Your task to perform on an android device: open app "DoorDash - Dasher" (install if not already installed) Image 0: 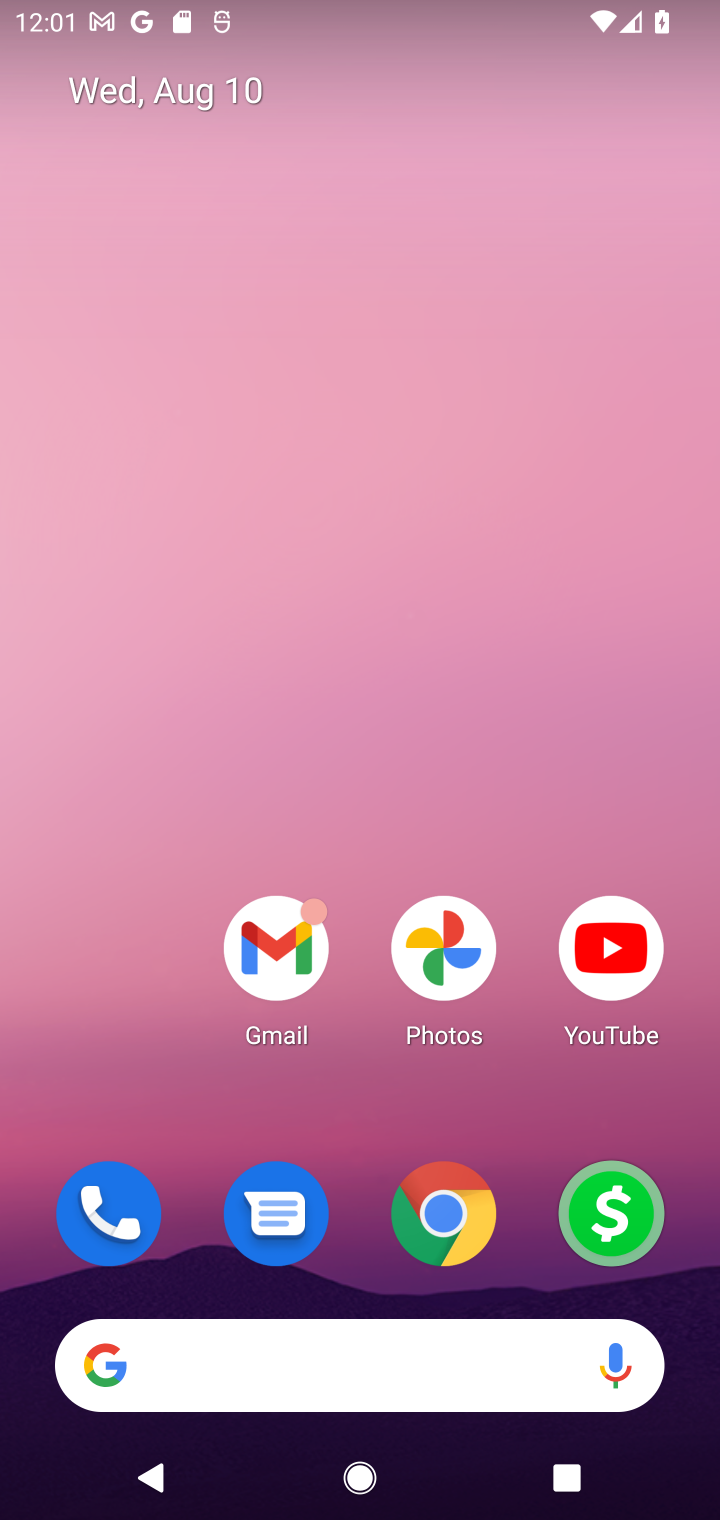
Step 0: drag from (413, 1353) to (359, 131)
Your task to perform on an android device: open app "DoorDash - Dasher" (install if not already installed) Image 1: 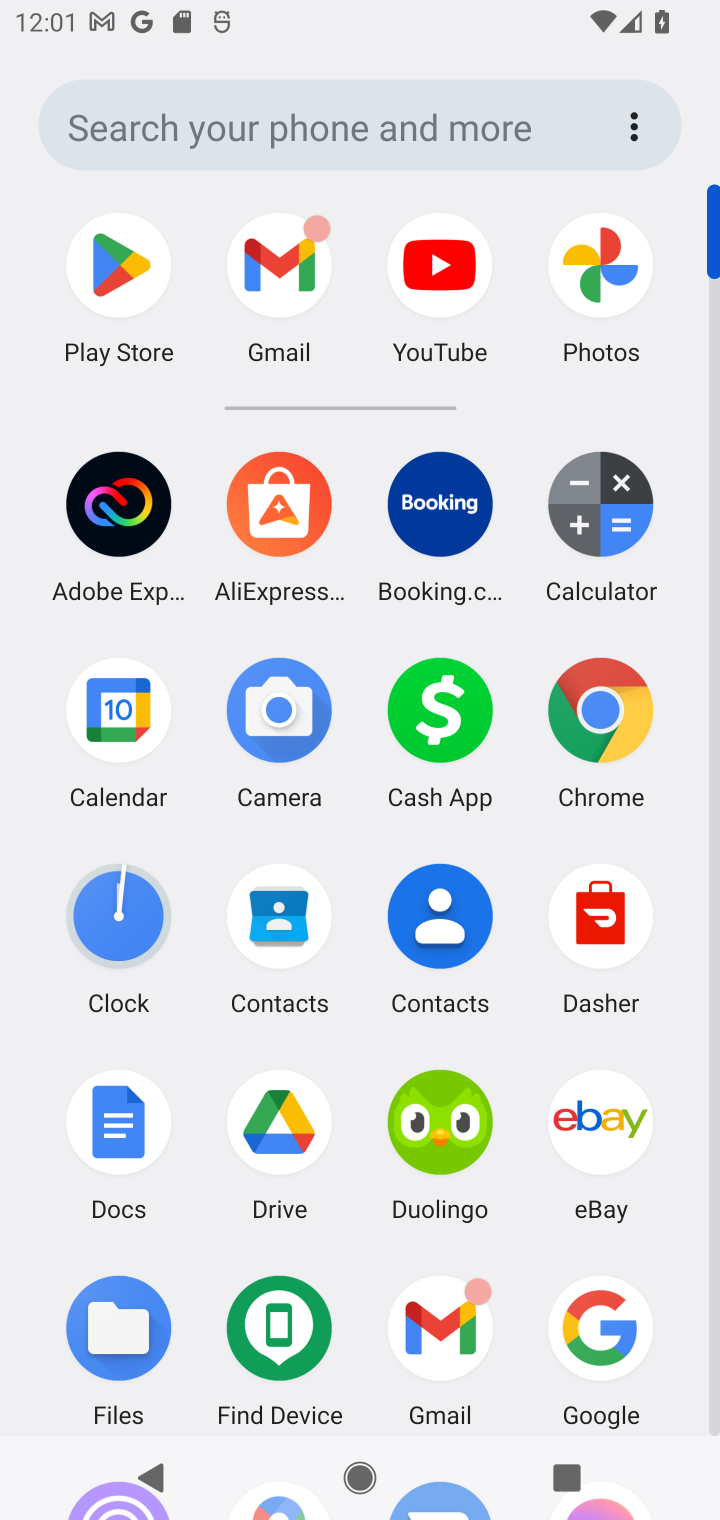
Step 1: click (130, 269)
Your task to perform on an android device: open app "DoorDash - Dasher" (install if not already installed) Image 2: 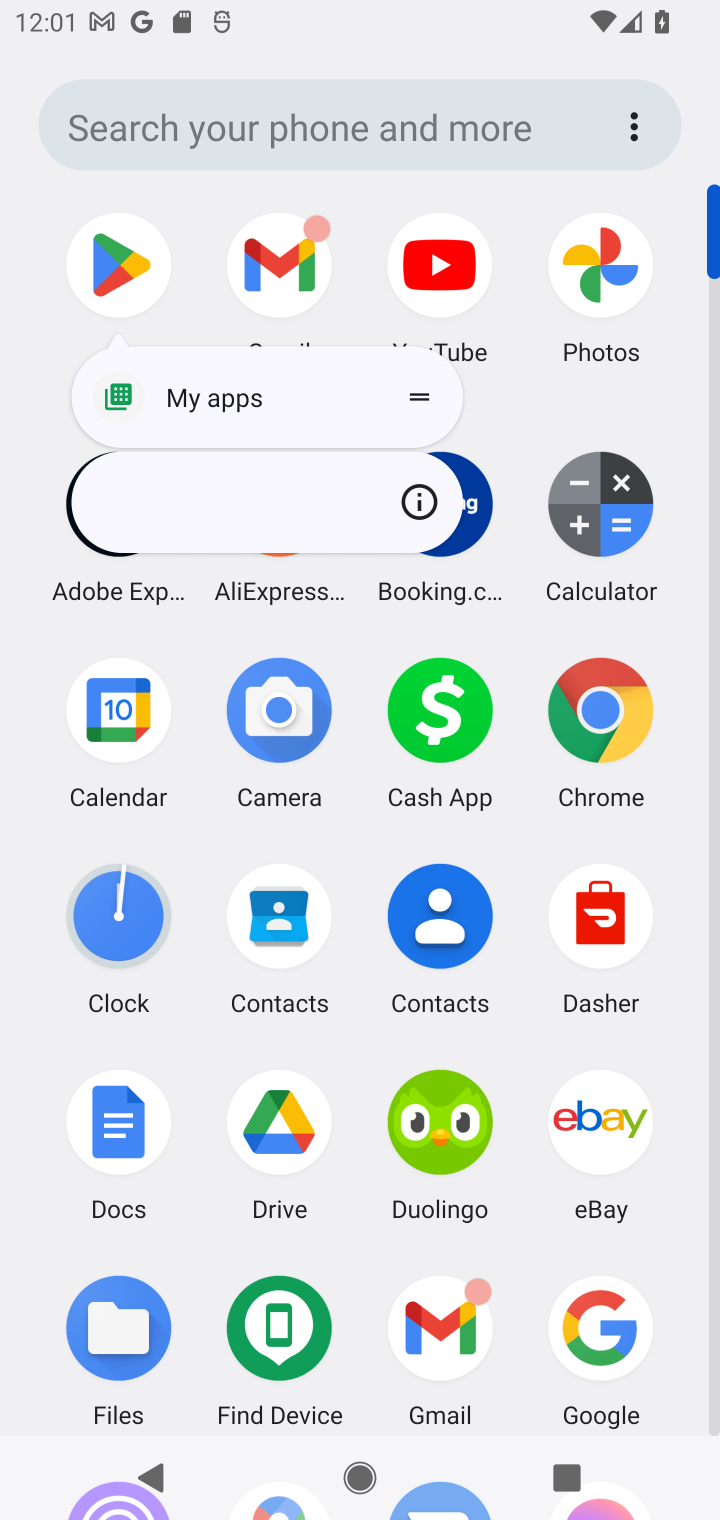
Step 2: click (130, 269)
Your task to perform on an android device: open app "DoorDash - Dasher" (install if not already installed) Image 3: 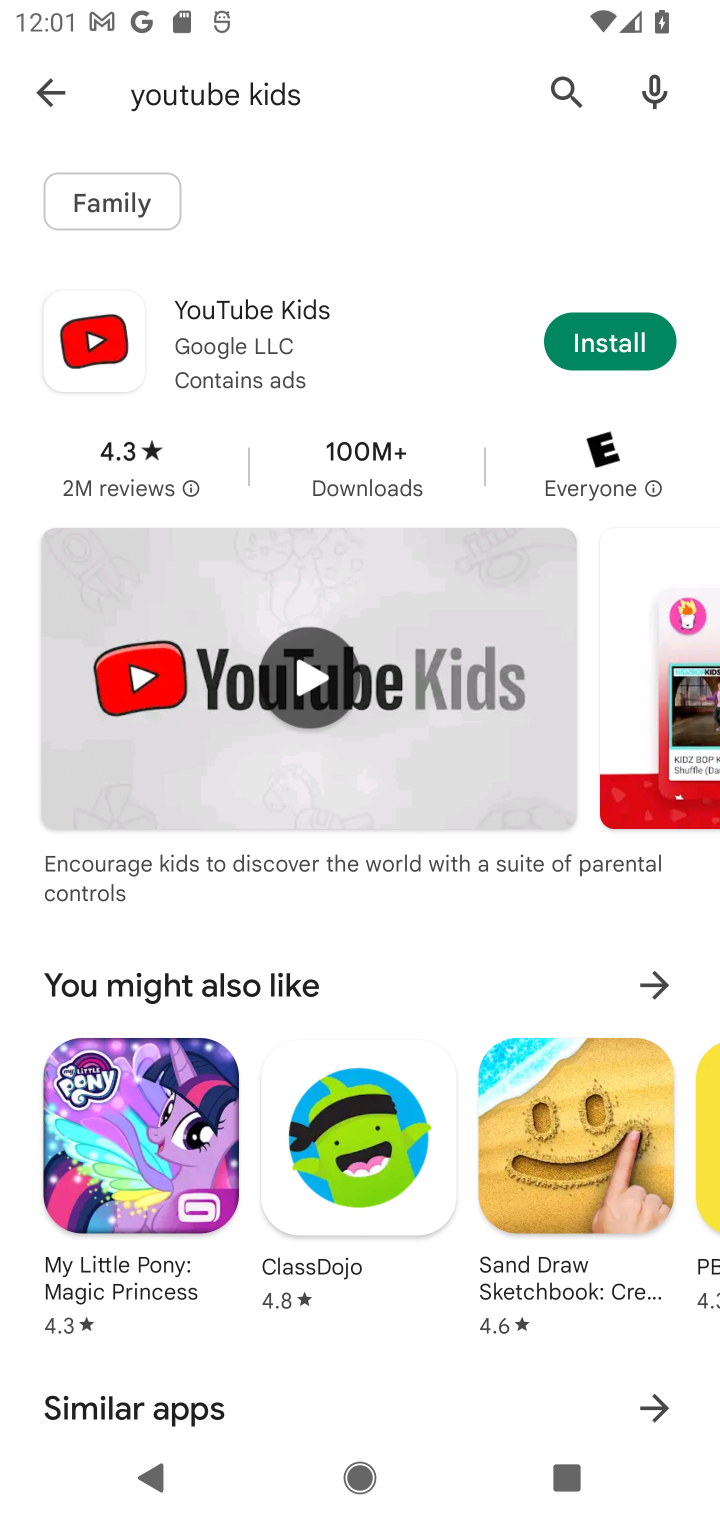
Step 3: press back button
Your task to perform on an android device: open app "DoorDash - Dasher" (install if not already installed) Image 4: 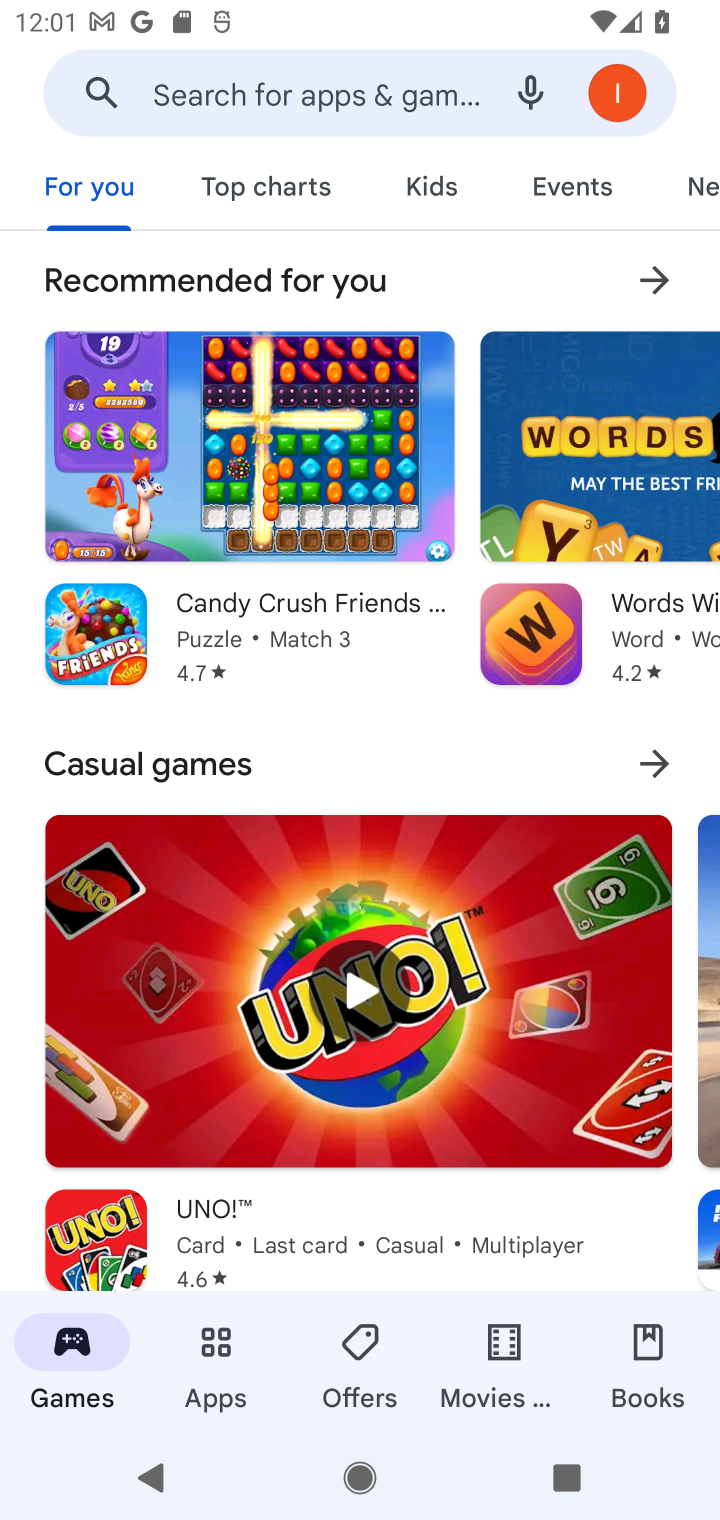
Step 4: click (402, 94)
Your task to perform on an android device: open app "DoorDash - Dasher" (install if not already installed) Image 5: 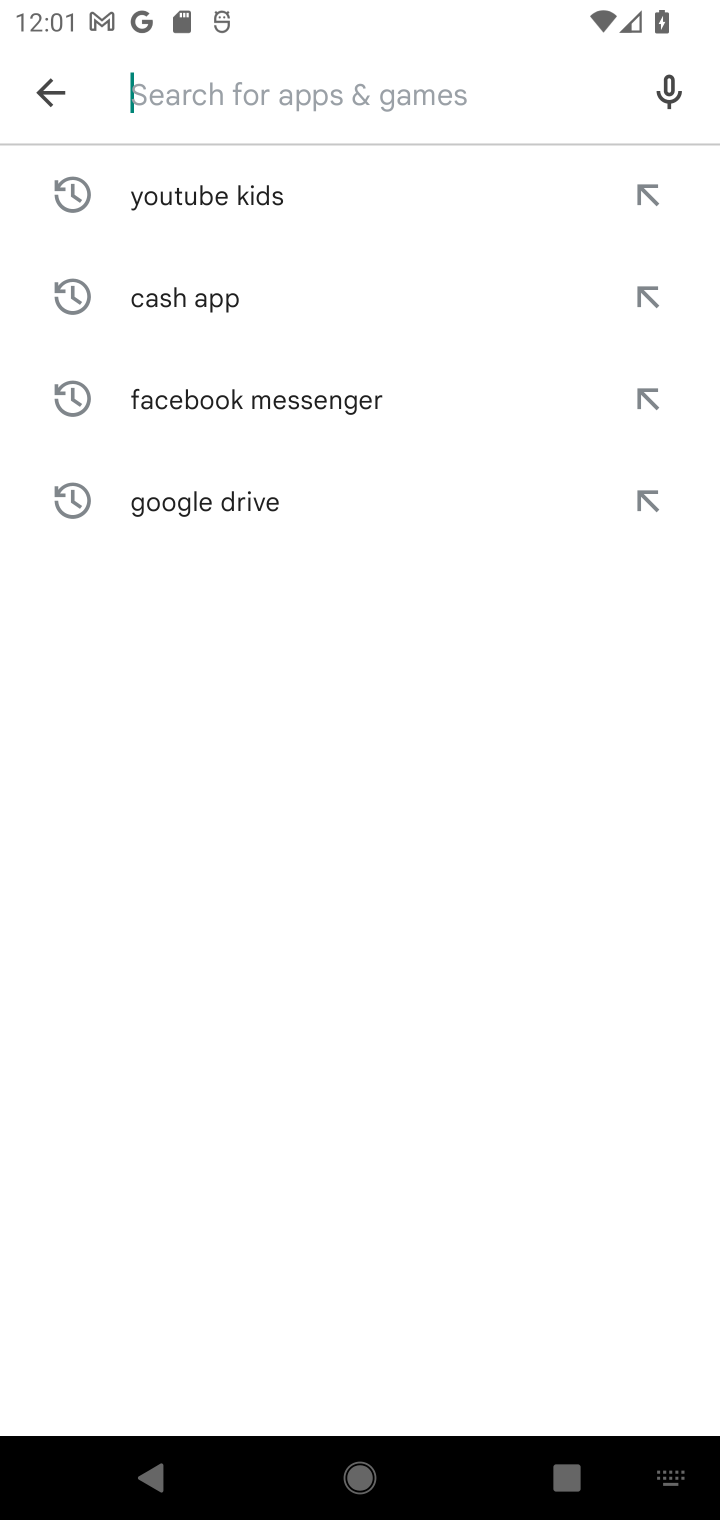
Step 5: click (292, 100)
Your task to perform on an android device: open app "DoorDash - Dasher" (install if not already installed) Image 6: 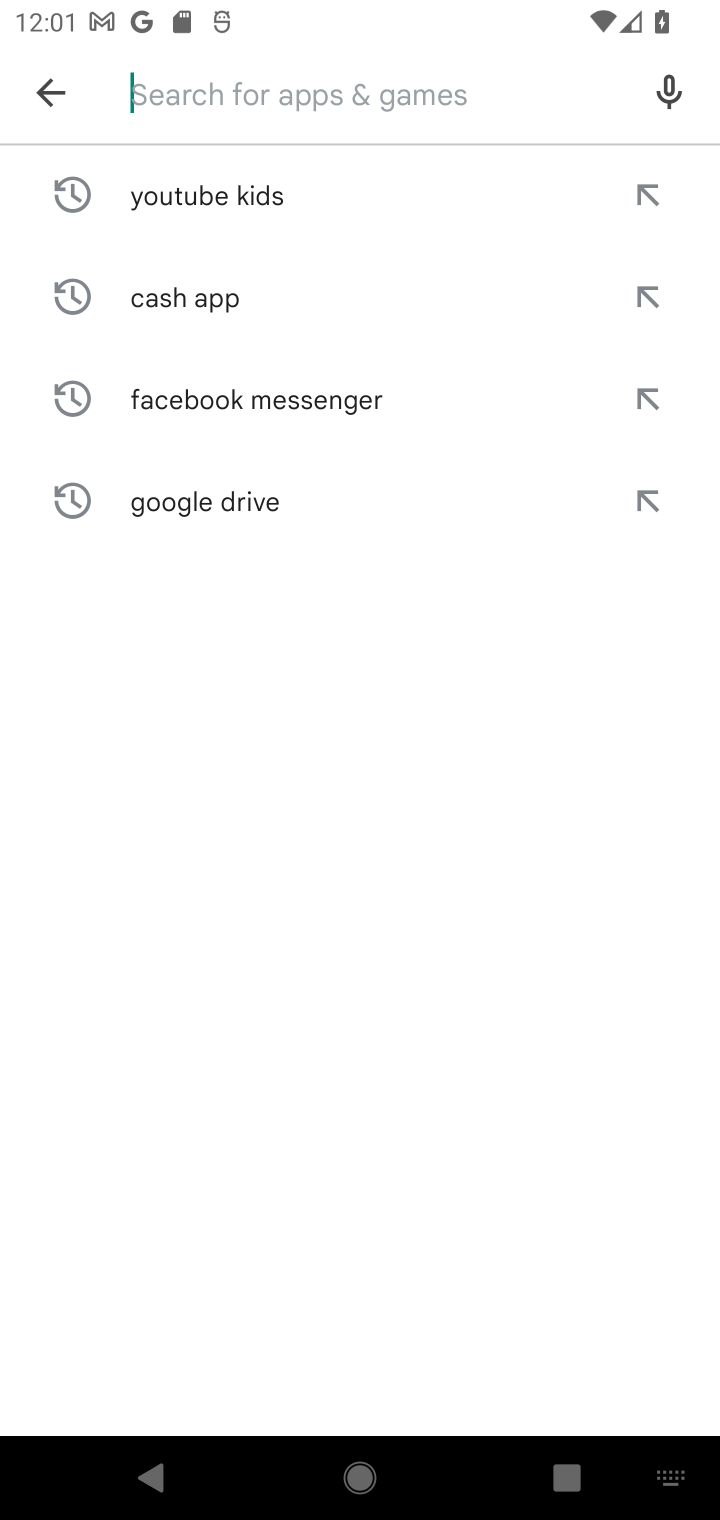
Step 6: type "DoorDash - Dasher"
Your task to perform on an android device: open app "DoorDash - Dasher" (install if not already installed) Image 7: 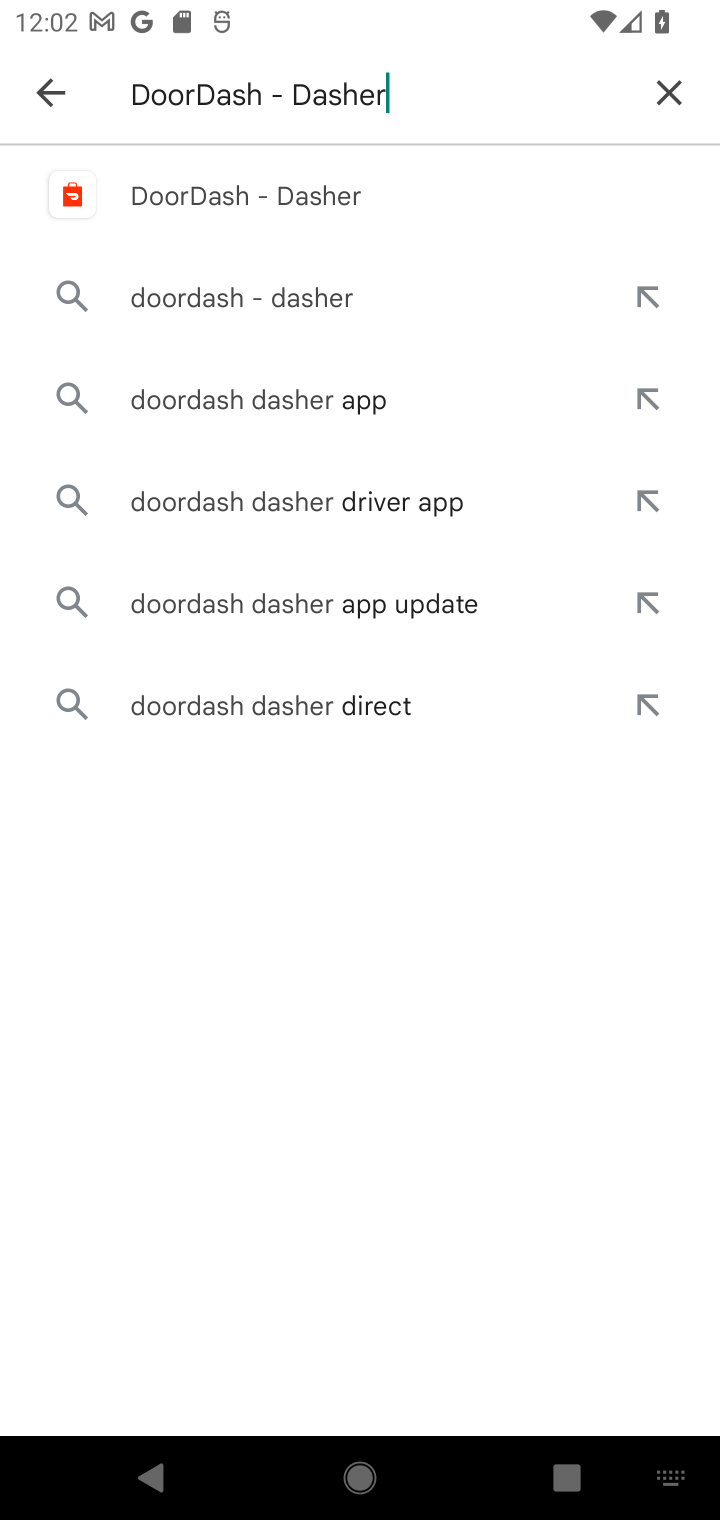
Step 7: click (231, 200)
Your task to perform on an android device: open app "DoorDash - Dasher" (install if not already installed) Image 8: 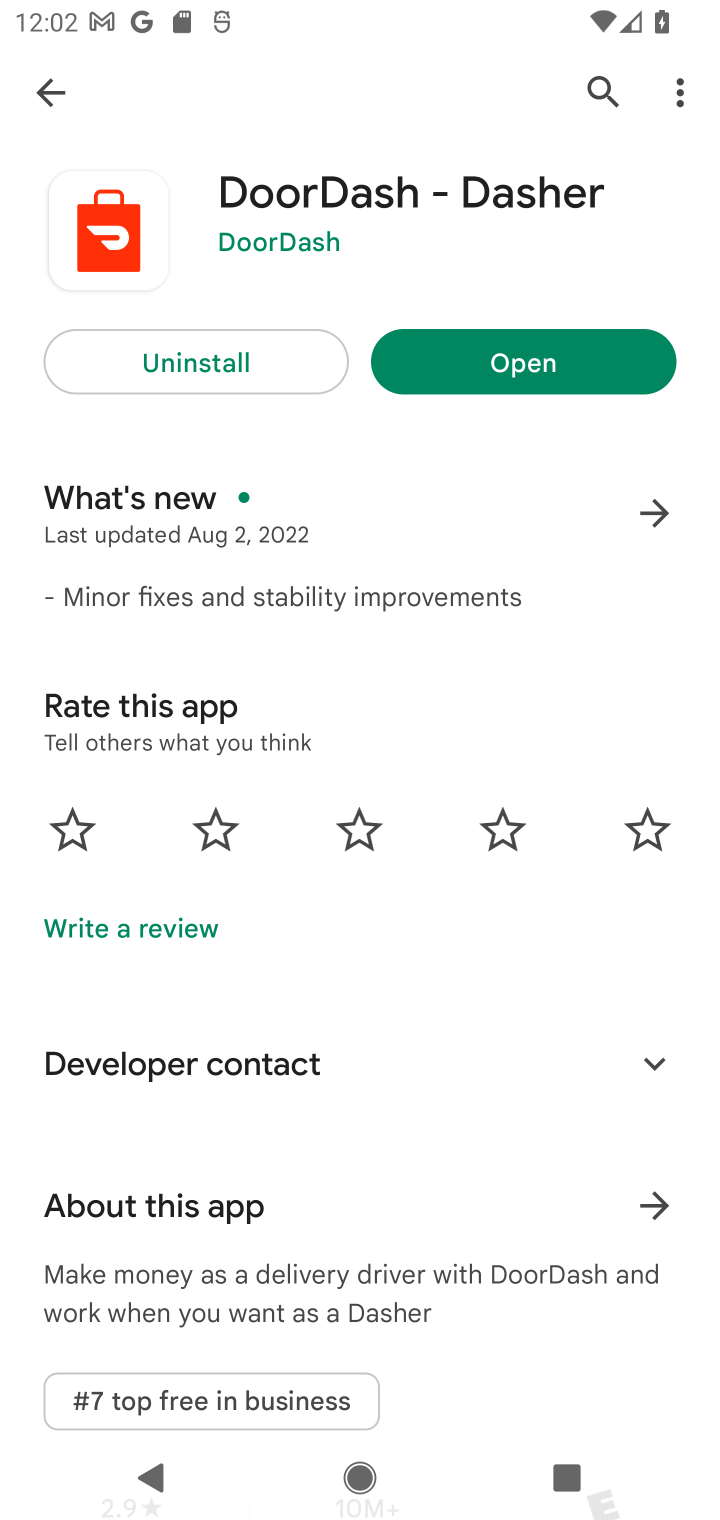
Step 8: click (484, 373)
Your task to perform on an android device: open app "DoorDash - Dasher" (install if not already installed) Image 9: 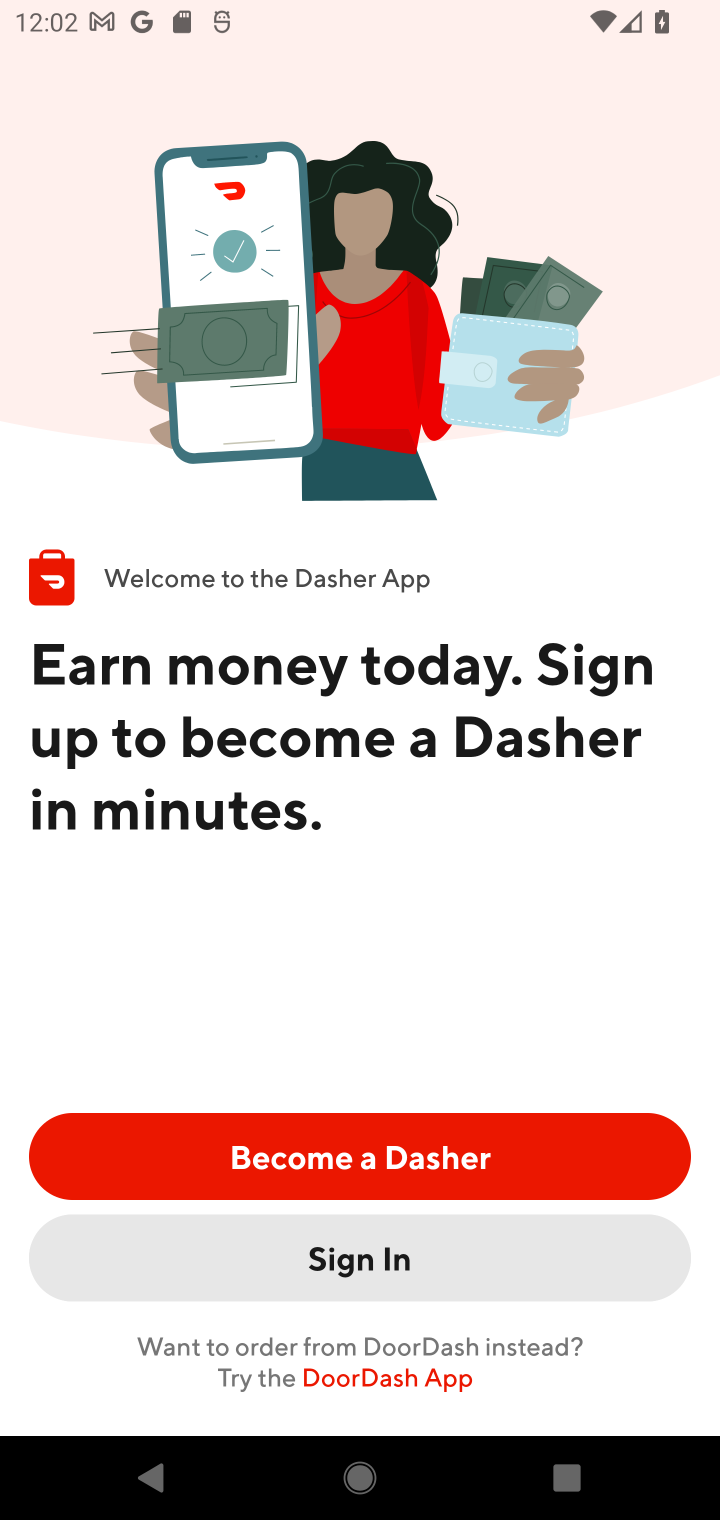
Step 9: task complete